Your task to perform on an android device: Do I have any events today? Image 0: 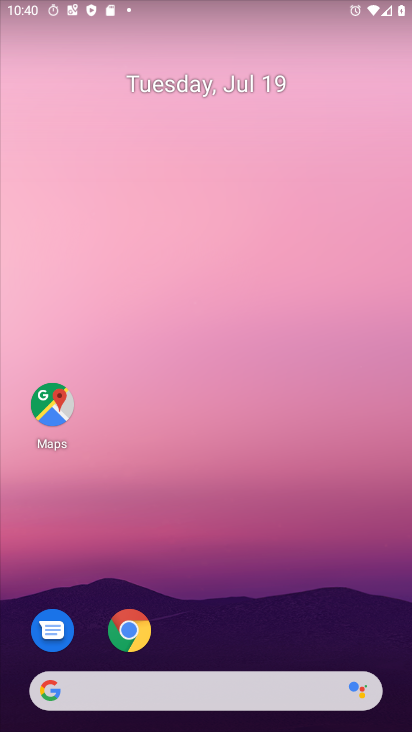
Step 0: press home button
Your task to perform on an android device: Do I have any events today? Image 1: 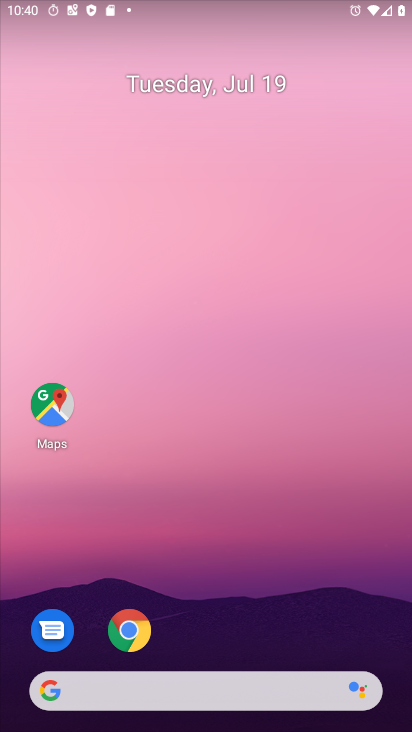
Step 1: drag from (235, 634) to (267, 161)
Your task to perform on an android device: Do I have any events today? Image 2: 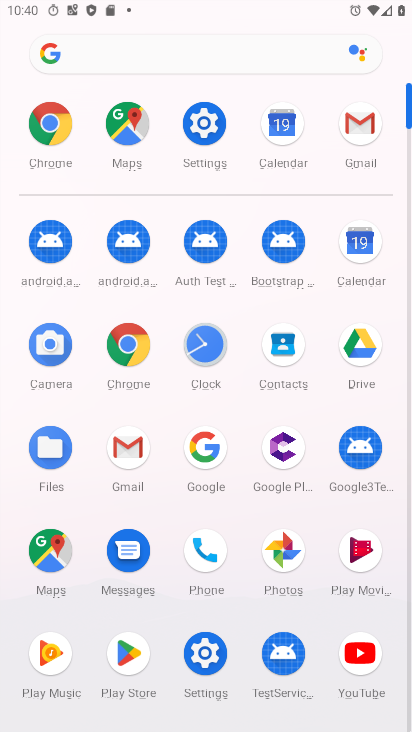
Step 2: click (356, 240)
Your task to perform on an android device: Do I have any events today? Image 3: 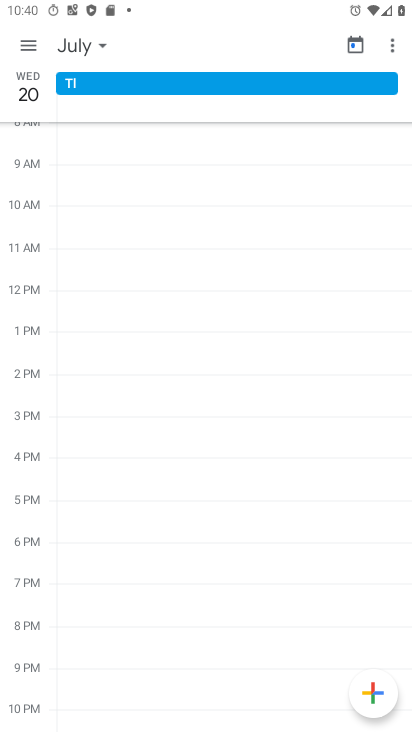
Step 3: task complete